Your task to perform on an android device: change alarm snooze length Image 0: 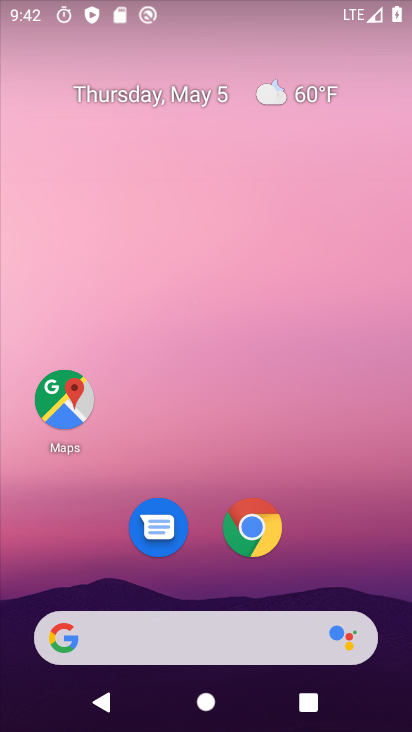
Step 0: drag from (315, 564) to (407, 86)
Your task to perform on an android device: change alarm snooze length Image 1: 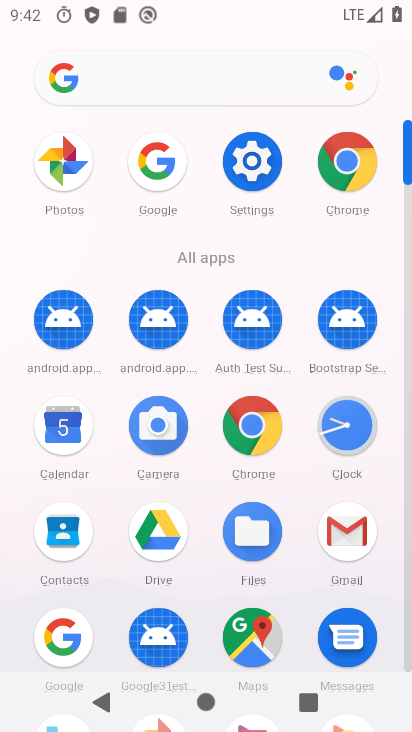
Step 1: click (346, 432)
Your task to perform on an android device: change alarm snooze length Image 2: 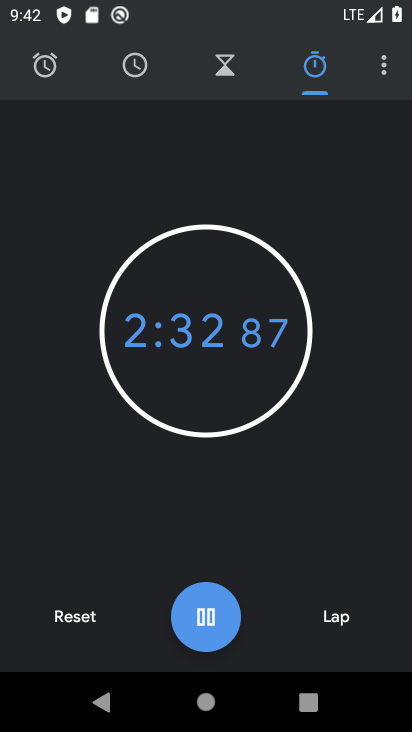
Step 2: click (383, 62)
Your task to perform on an android device: change alarm snooze length Image 3: 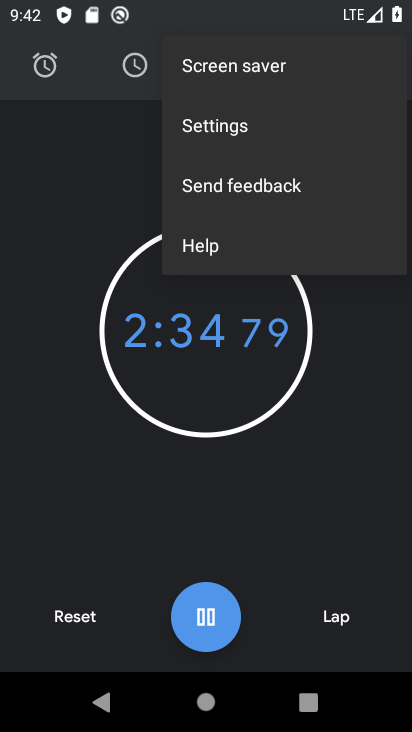
Step 3: click (193, 116)
Your task to perform on an android device: change alarm snooze length Image 4: 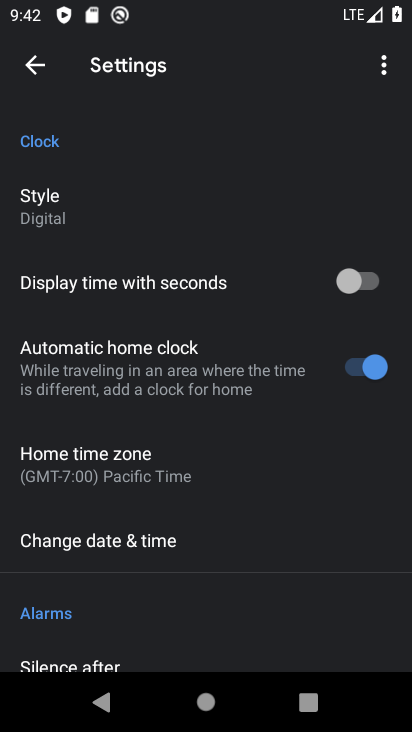
Step 4: drag from (145, 576) to (200, 179)
Your task to perform on an android device: change alarm snooze length Image 5: 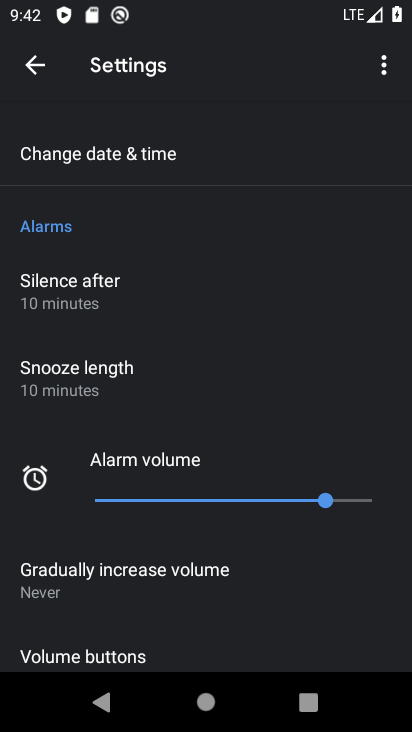
Step 5: click (122, 394)
Your task to perform on an android device: change alarm snooze length Image 6: 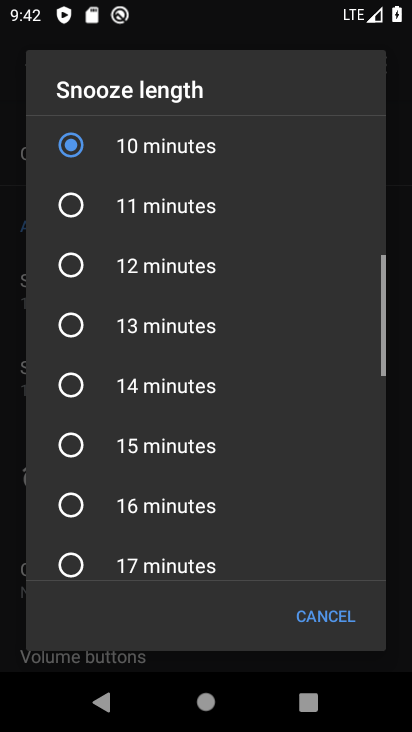
Step 6: click (154, 216)
Your task to perform on an android device: change alarm snooze length Image 7: 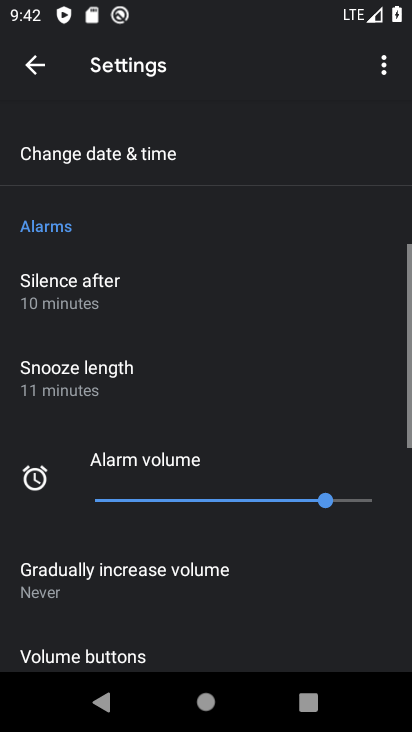
Step 7: task complete